Your task to perform on an android device: Search for vegetarian restaurants on Maps Image 0: 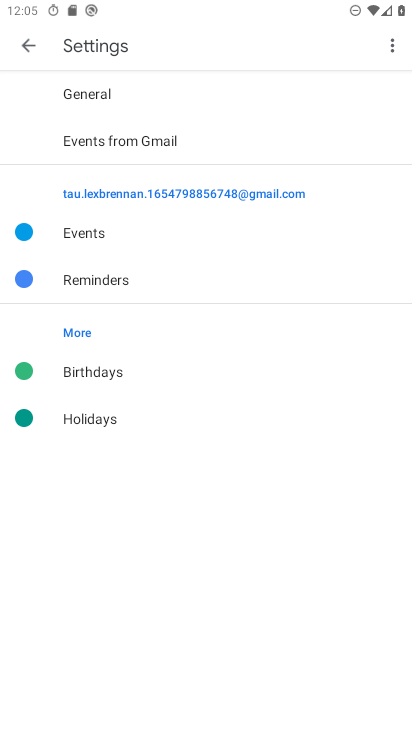
Step 0: press home button
Your task to perform on an android device: Search for vegetarian restaurants on Maps Image 1: 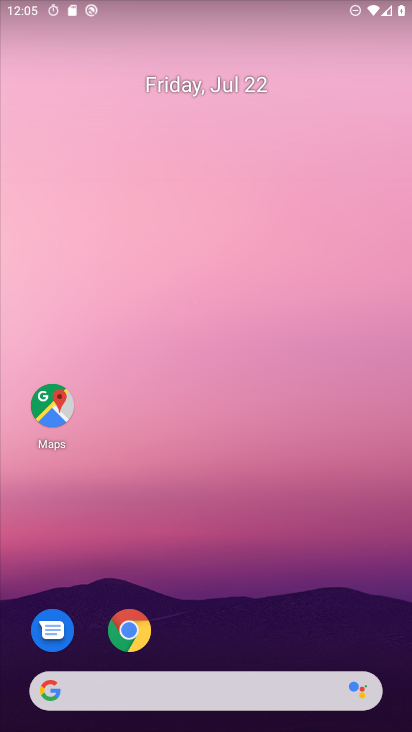
Step 1: click (51, 408)
Your task to perform on an android device: Search for vegetarian restaurants on Maps Image 2: 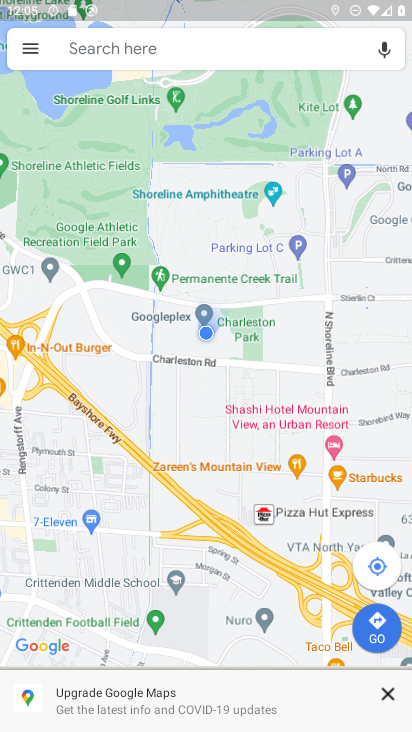
Step 2: click (92, 50)
Your task to perform on an android device: Search for vegetarian restaurants on Maps Image 3: 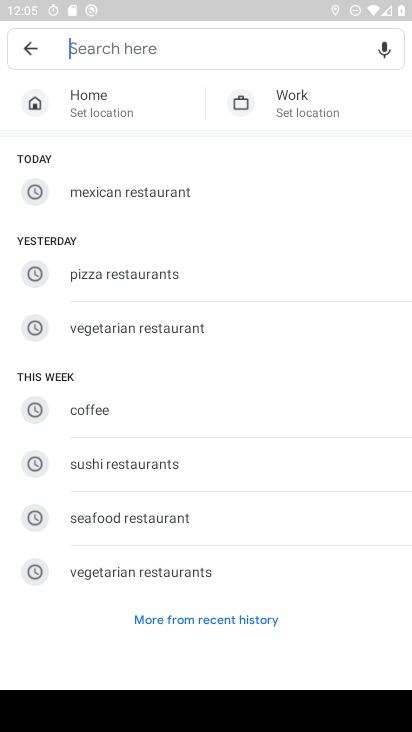
Step 3: click (151, 324)
Your task to perform on an android device: Search for vegetarian restaurants on Maps Image 4: 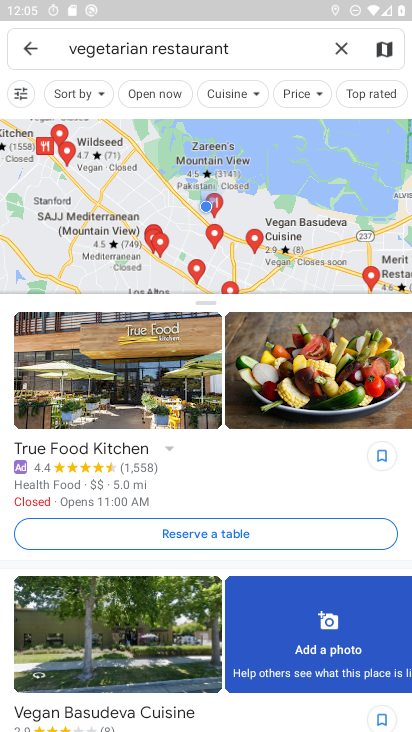
Step 4: task complete